Your task to perform on an android device: Go to internet settings Image 0: 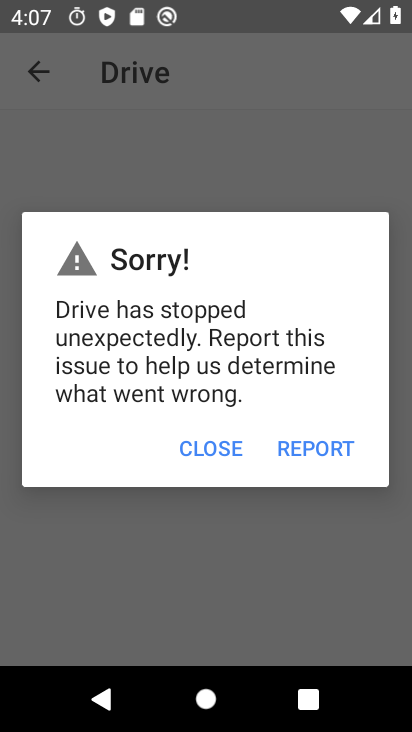
Step 0: press back button
Your task to perform on an android device: Go to internet settings Image 1: 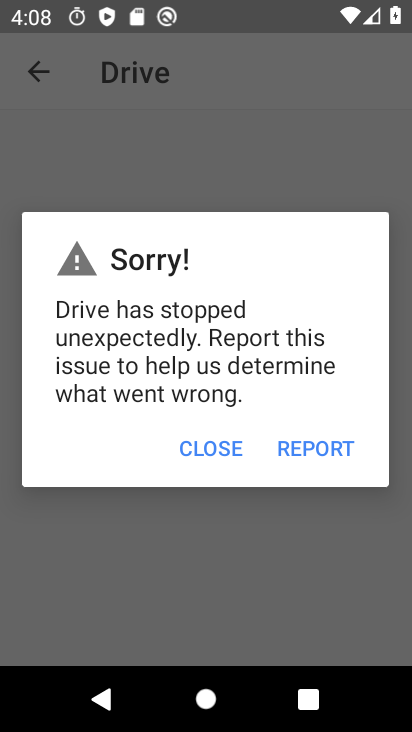
Step 1: press back button
Your task to perform on an android device: Go to internet settings Image 2: 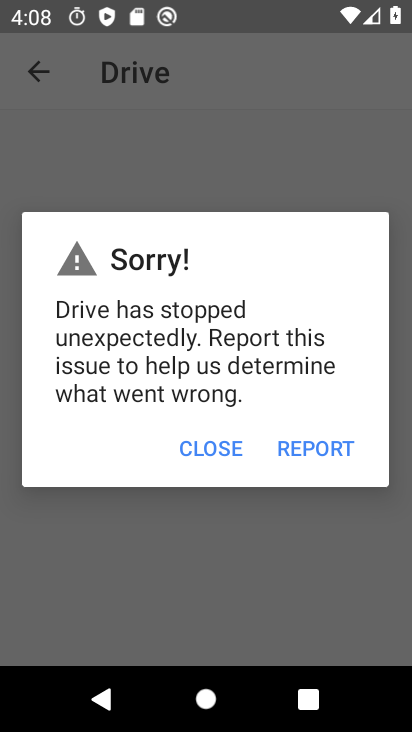
Step 2: press home button
Your task to perform on an android device: Go to internet settings Image 3: 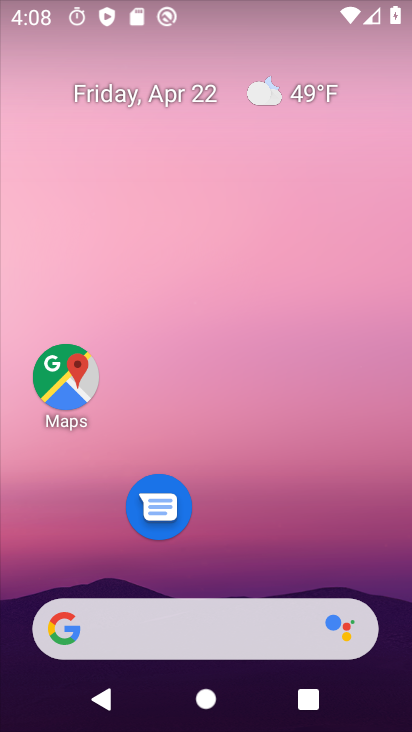
Step 3: drag from (237, 541) to (320, 41)
Your task to perform on an android device: Go to internet settings Image 4: 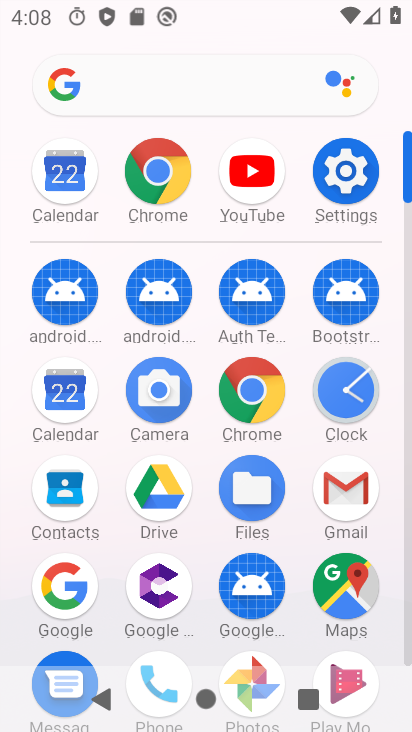
Step 4: click (332, 175)
Your task to perform on an android device: Go to internet settings Image 5: 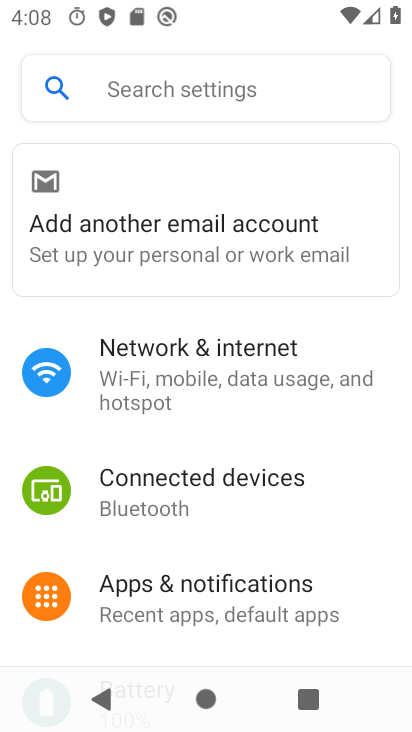
Step 5: click (219, 382)
Your task to perform on an android device: Go to internet settings Image 6: 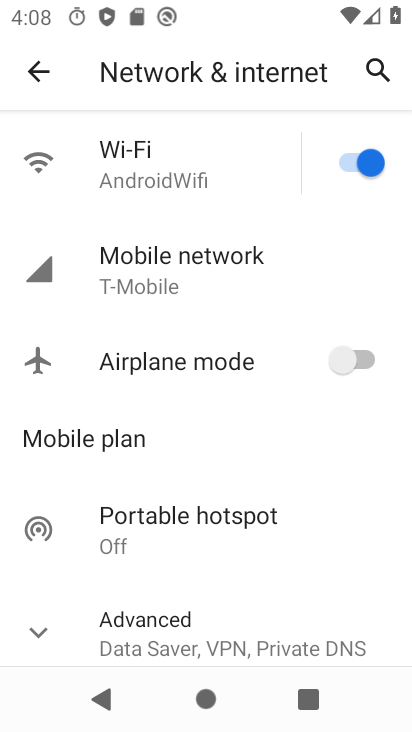
Step 6: task complete